Your task to perform on an android device: snooze an email in the gmail app Image 0: 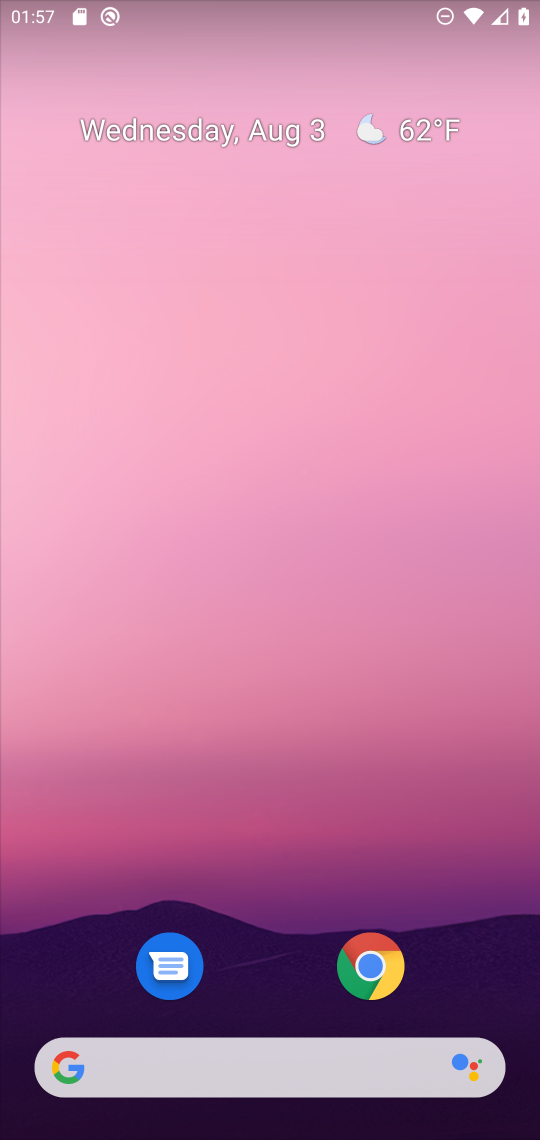
Step 0: drag from (278, 945) to (306, 322)
Your task to perform on an android device: snooze an email in the gmail app Image 1: 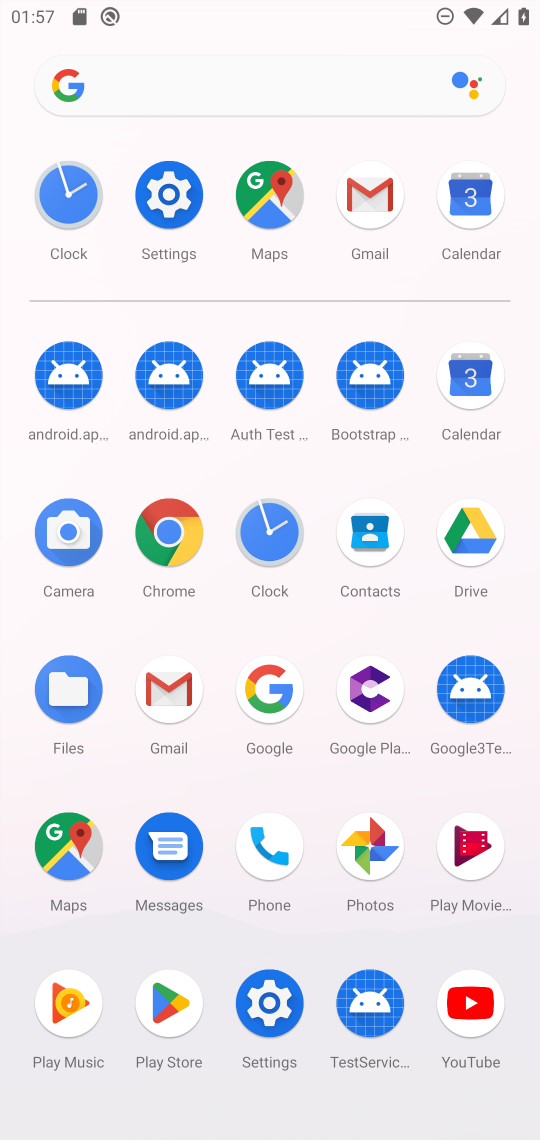
Step 1: click (351, 243)
Your task to perform on an android device: snooze an email in the gmail app Image 2: 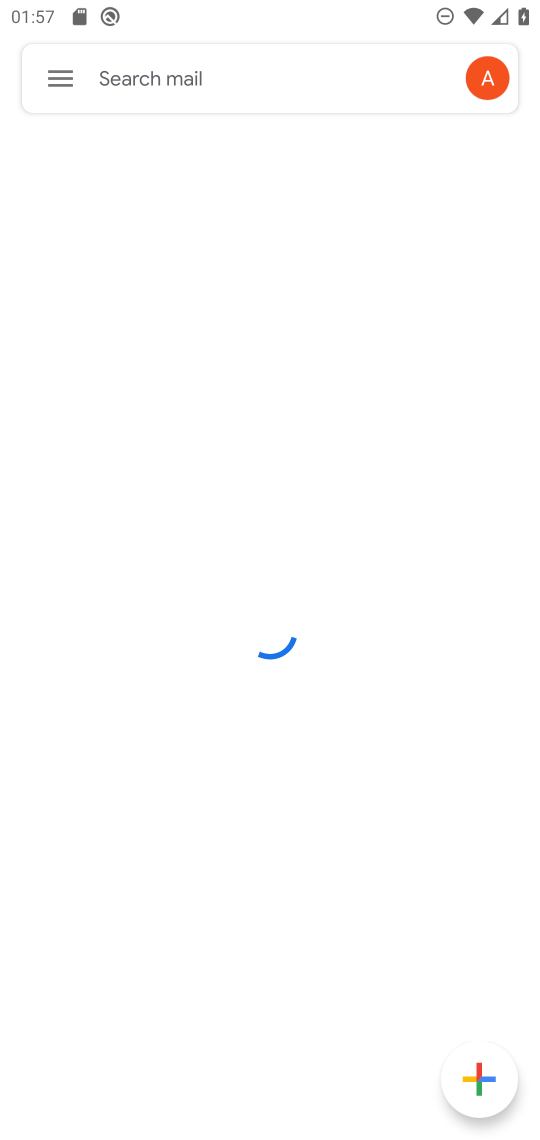
Step 2: click (66, 89)
Your task to perform on an android device: snooze an email in the gmail app Image 3: 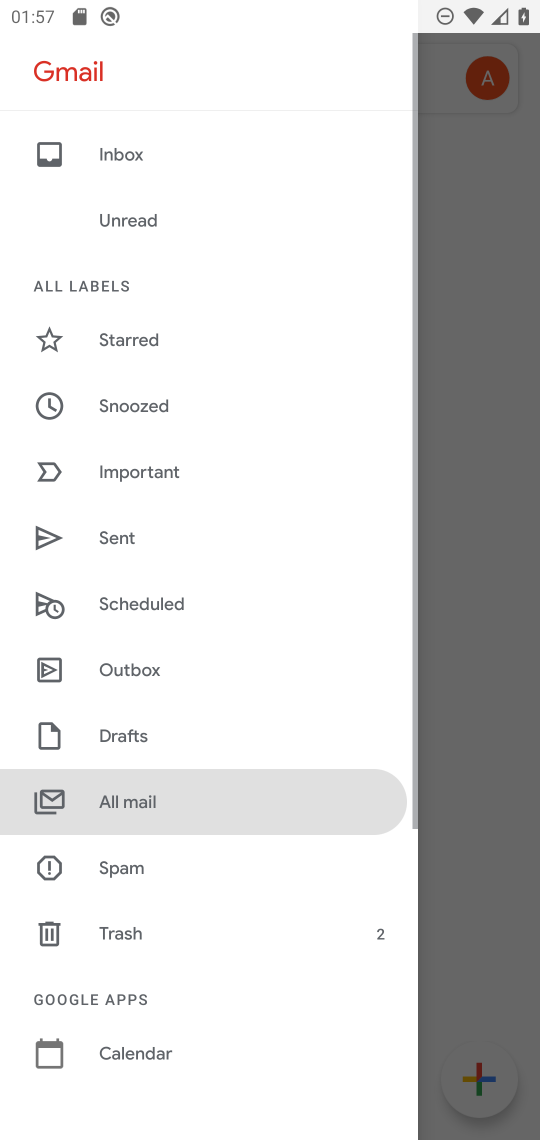
Step 3: click (191, 779)
Your task to perform on an android device: snooze an email in the gmail app Image 4: 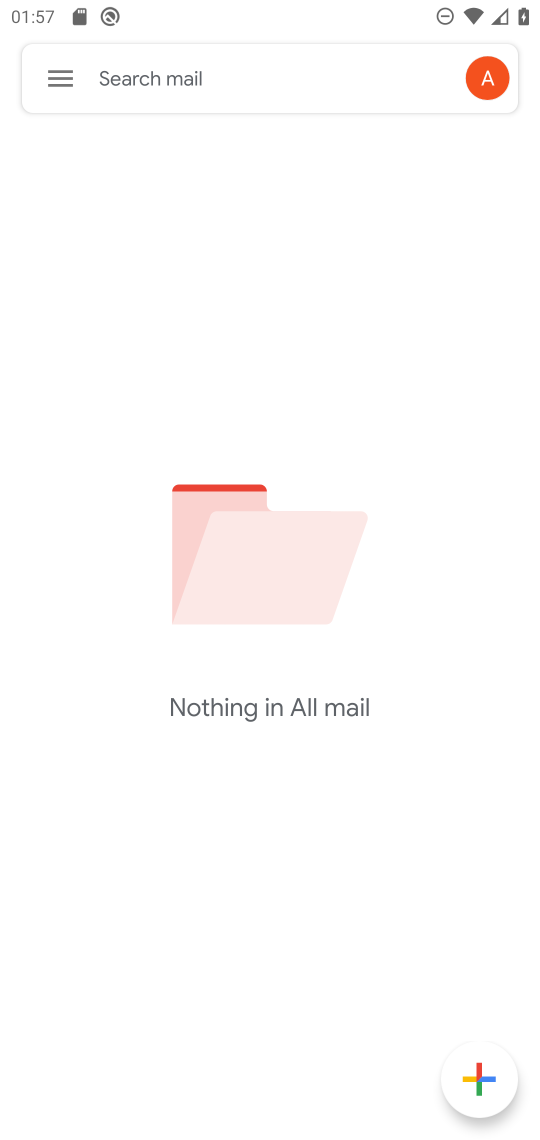
Step 4: task complete